Your task to perform on an android device: set the stopwatch Image 0: 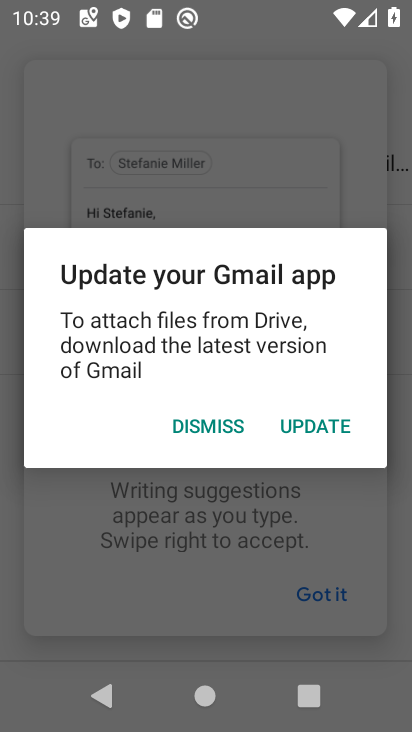
Step 0: press home button
Your task to perform on an android device: set the stopwatch Image 1: 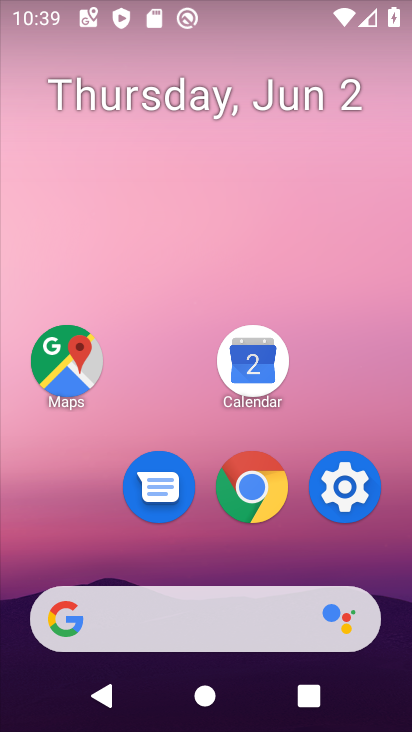
Step 1: drag from (262, 654) to (271, 285)
Your task to perform on an android device: set the stopwatch Image 2: 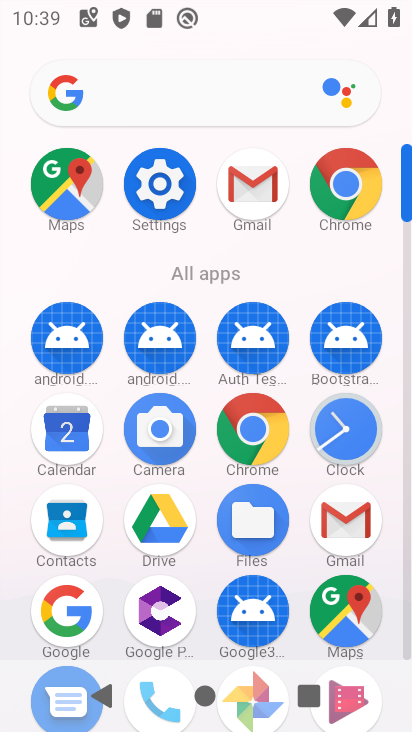
Step 2: click (336, 439)
Your task to perform on an android device: set the stopwatch Image 3: 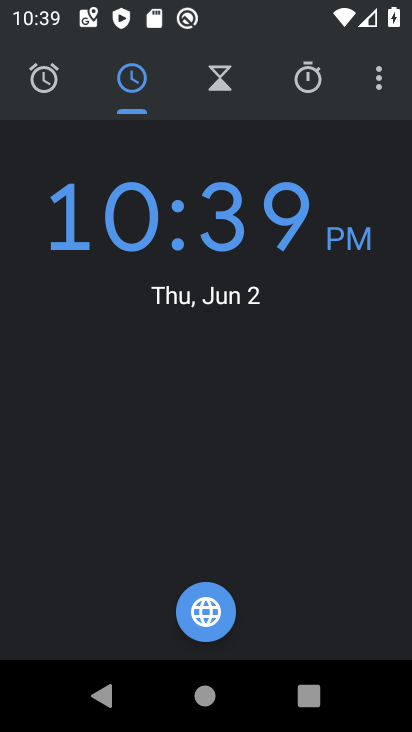
Step 3: click (301, 86)
Your task to perform on an android device: set the stopwatch Image 4: 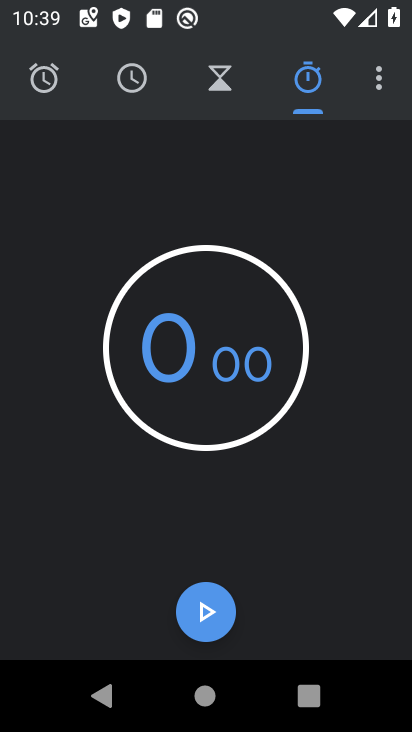
Step 4: task complete